Your task to perform on an android device: turn on the 24-hour format for clock Image 0: 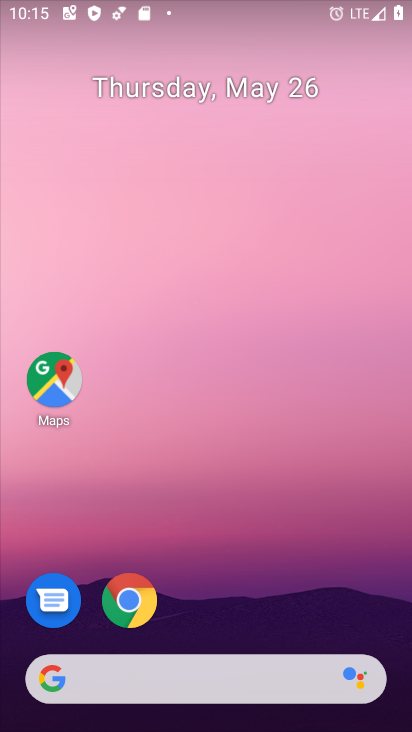
Step 0: drag from (285, 555) to (350, 83)
Your task to perform on an android device: turn on the 24-hour format for clock Image 1: 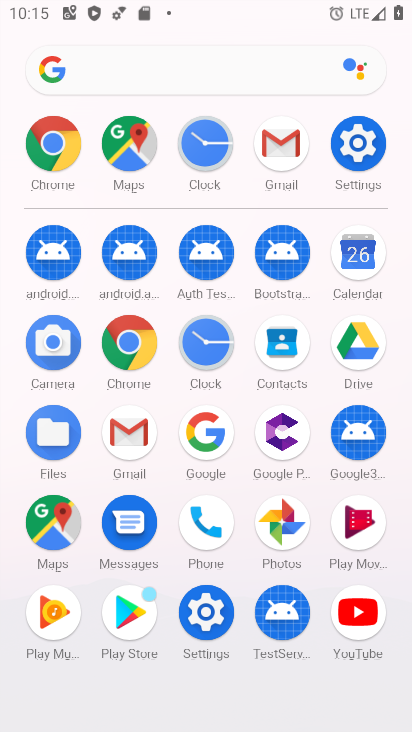
Step 1: click (210, 143)
Your task to perform on an android device: turn on the 24-hour format for clock Image 2: 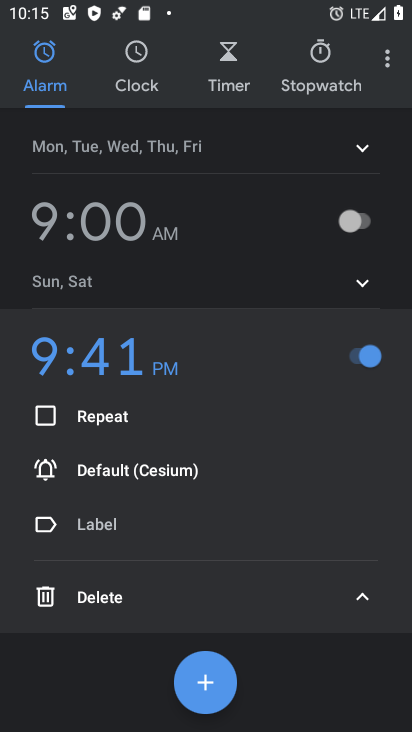
Step 2: click (385, 44)
Your task to perform on an android device: turn on the 24-hour format for clock Image 3: 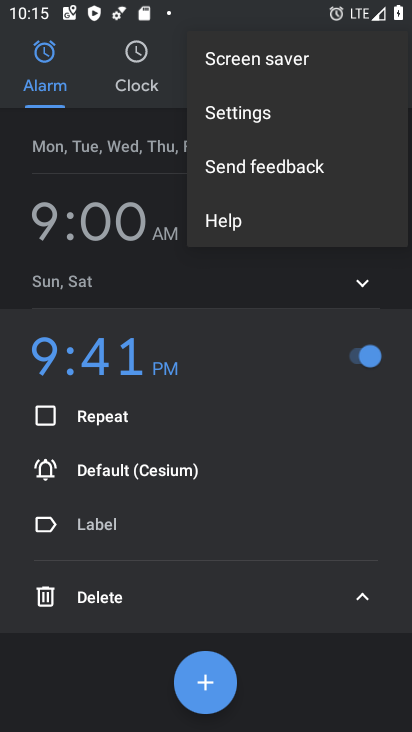
Step 3: click (250, 114)
Your task to perform on an android device: turn on the 24-hour format for clock Image 4: 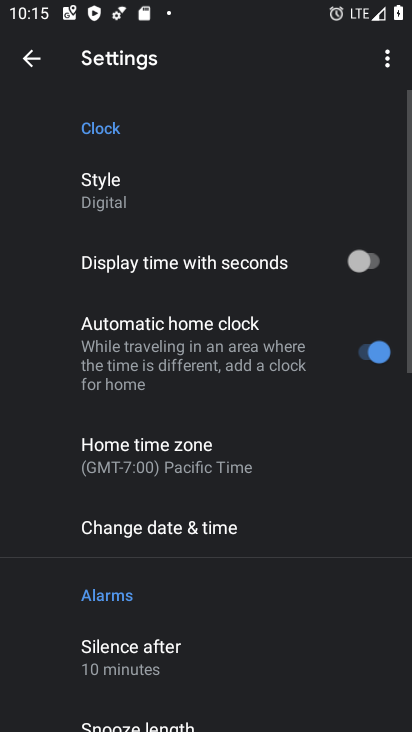
Step 4: click (244, 491)
Your task to perform on an android device: turn on the 24-hour format for clock Image 5: 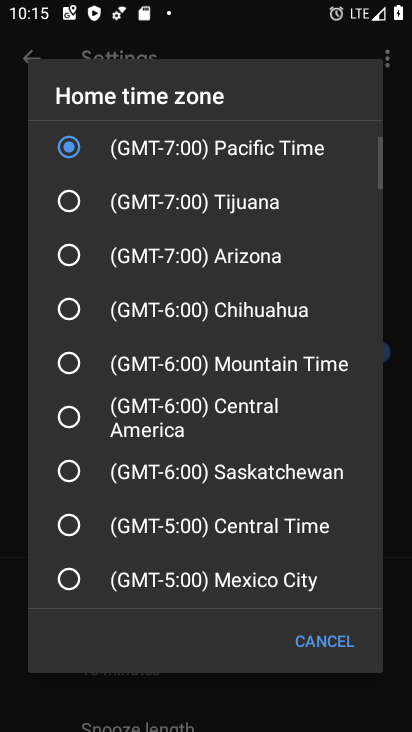
Step 5: click (323, 638)
Your task to perform on an android device: turn on the 24-hour format for clock Image 6: 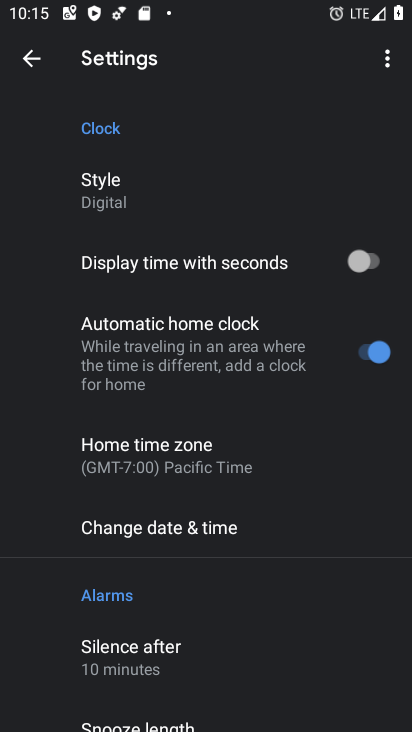
Step 6: click (232, 536)
Your task to perform on an android device: turn on the 24-hour format for clock Image 7: 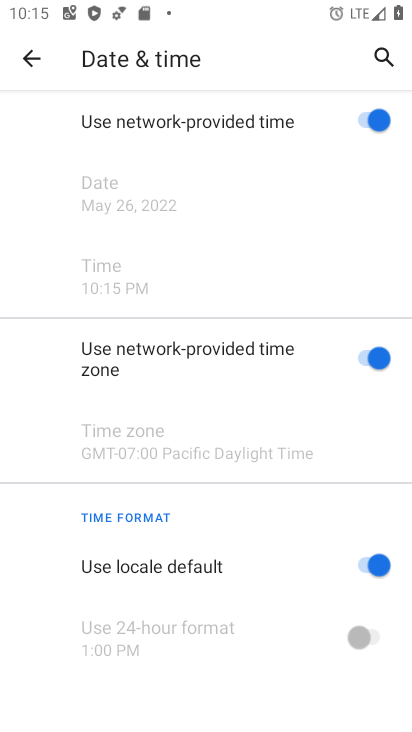
Step 7: click (364, 560)
Your task to perform on an android device: turn on the 24-hour format for clock Image 8: 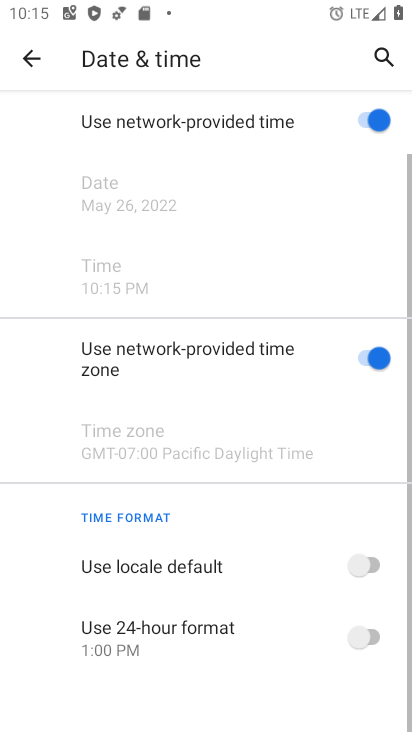
Step 8: click (370, 632)
Your task to perform on an android device: turn on the 24-hour format for clock Image 9: 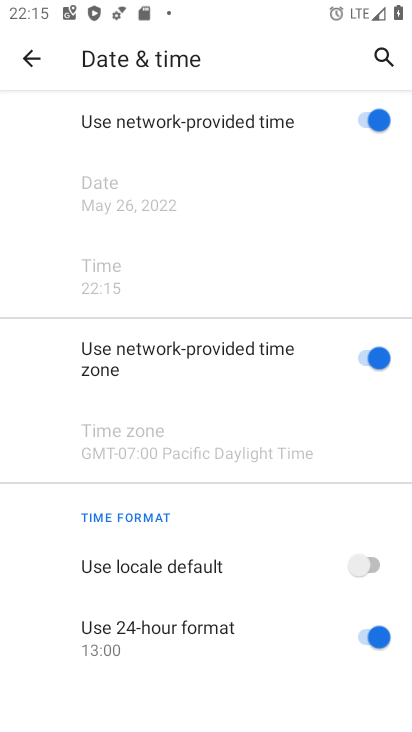
Step 9: task complete